Your task to perform on an android device: turn on priority inbox in the gmail app Image 0: 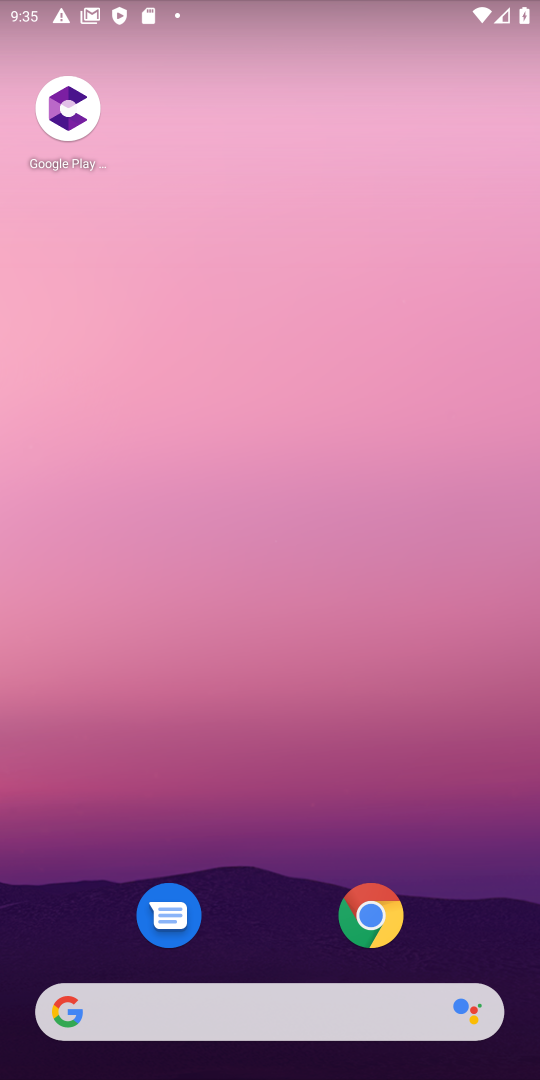
Step 0: press home button
Your task to perform on an android device: turn on priority inbox in the gmail app Image 1: 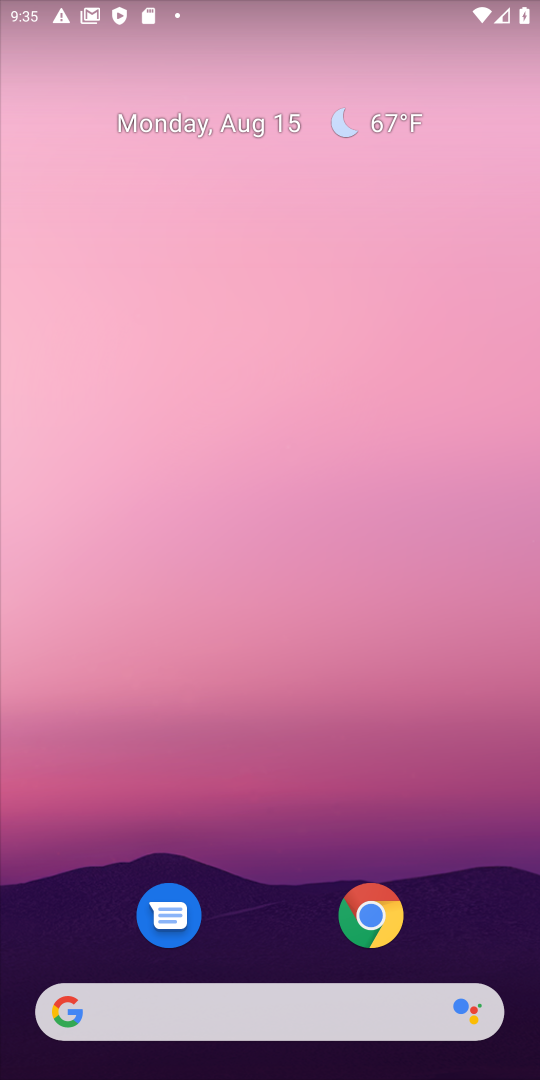
Step 1: drag from (281, 925) to (256, 228)
Your task to perform on an android device: turn on priority inbox in the gmail app Image 2: 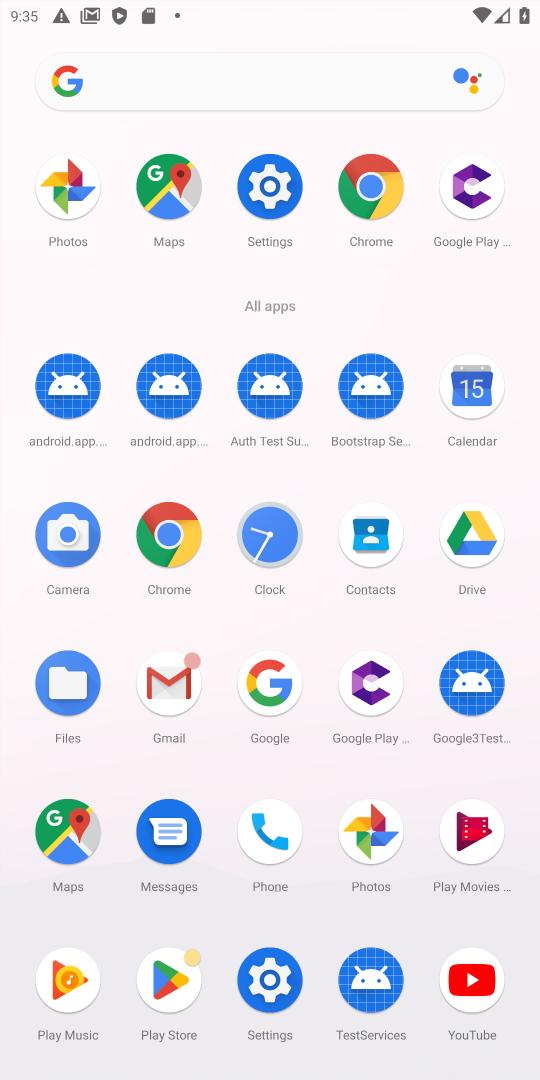
Step 2: click (167, 673)
Your task to perform on an android device: turn on priority inbox in the gmail app Image 3: 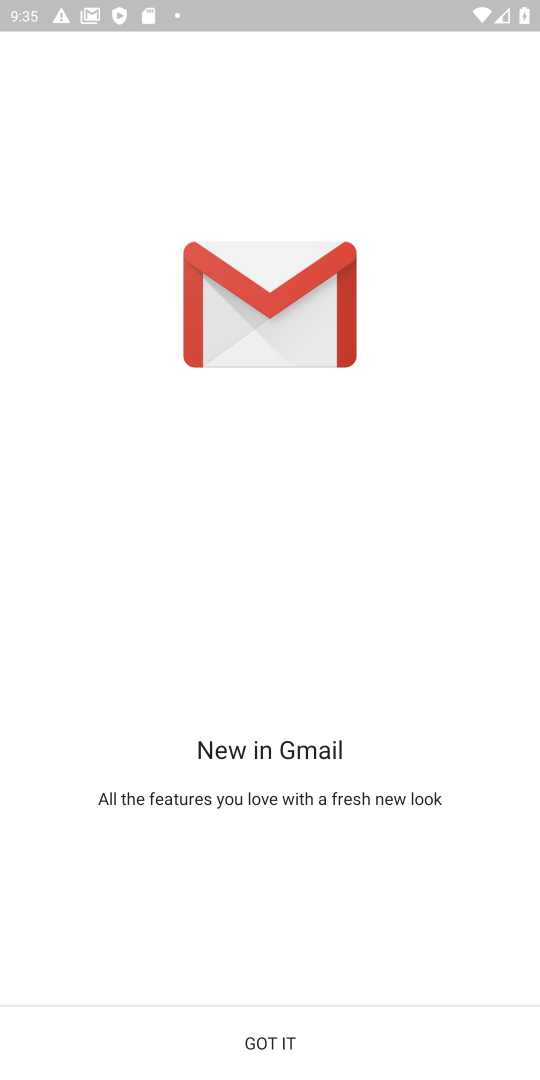
Step 3: click (264, 1035)
Your task to perform on an android device: turn on priority inbox in the gmail app Image 4: 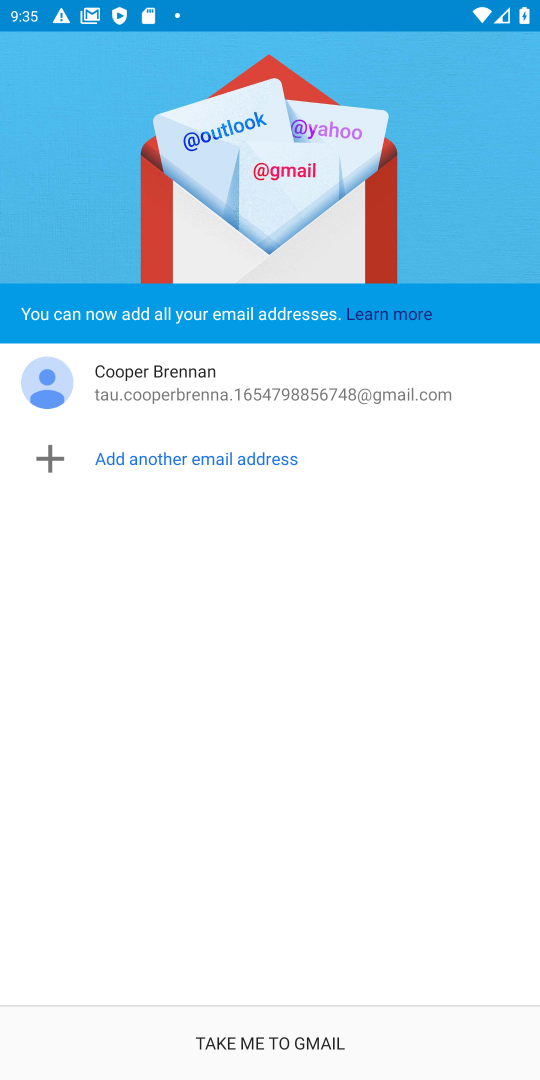
Step 4: click (264, 1035)
Your task to perform on an android device: turn on priority inbox in the gmail app Image 5: 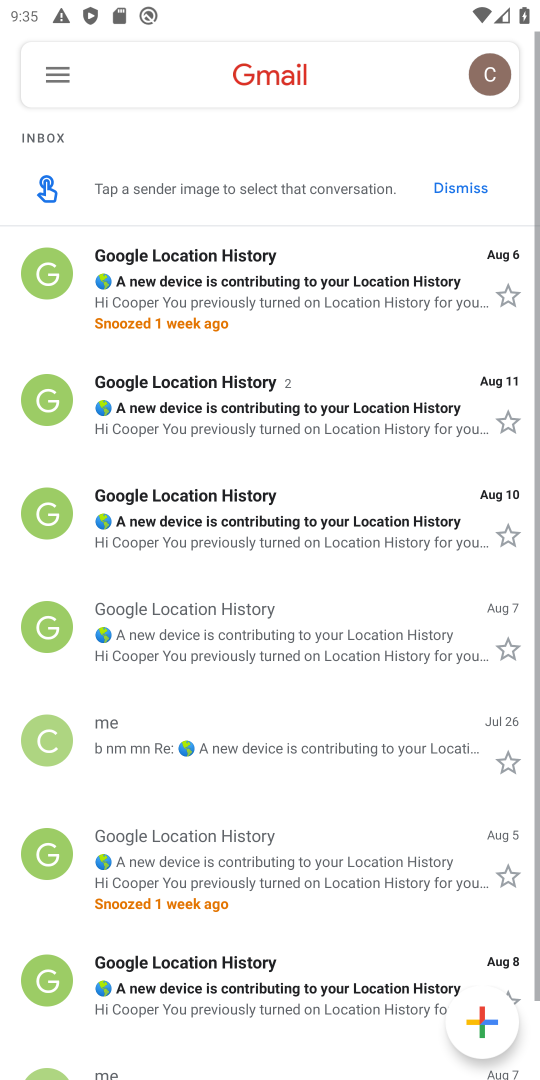
Step 5: click (487, 74)
Your task to perform on an android device: turn on priority inbox in the gmail app Image 6: 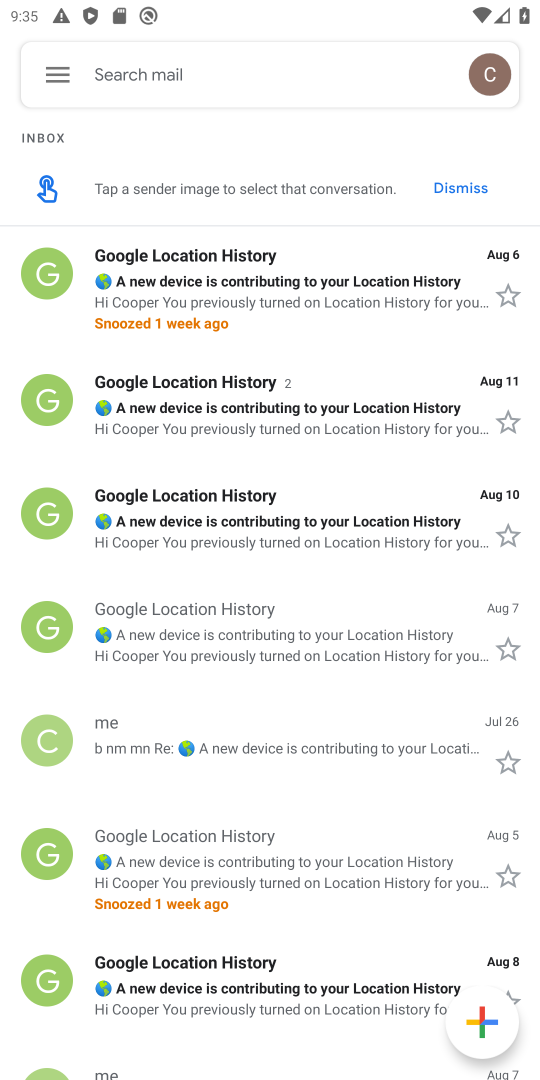
Step 6: click (492, 78)
Your task to perform on an android device: turn on priority inbox in the gmail app Image 7: 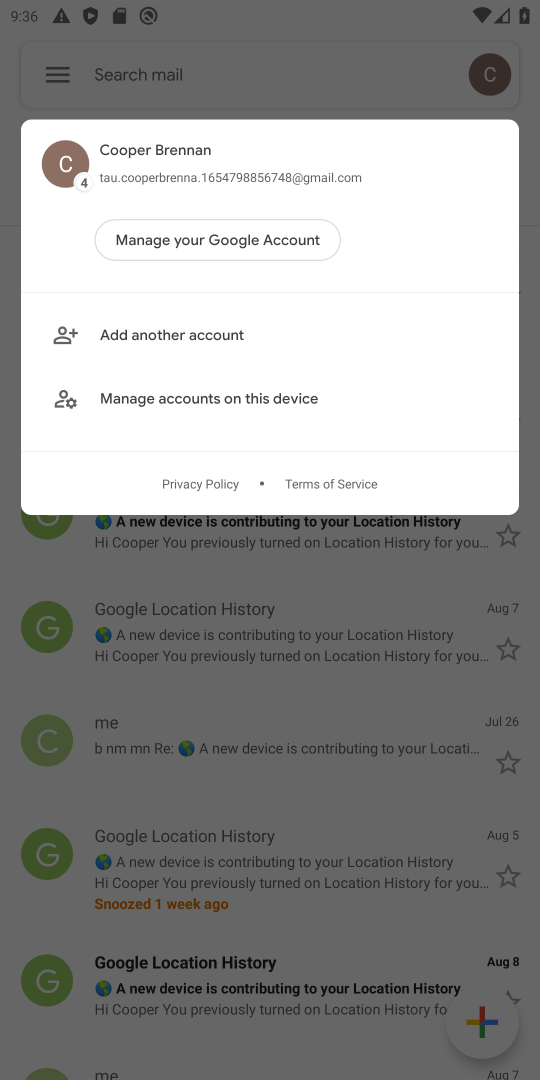
Step 7: click (55, 79)
Your task to perform on an android device: turn on priority inbox in the gmail app Image 8: 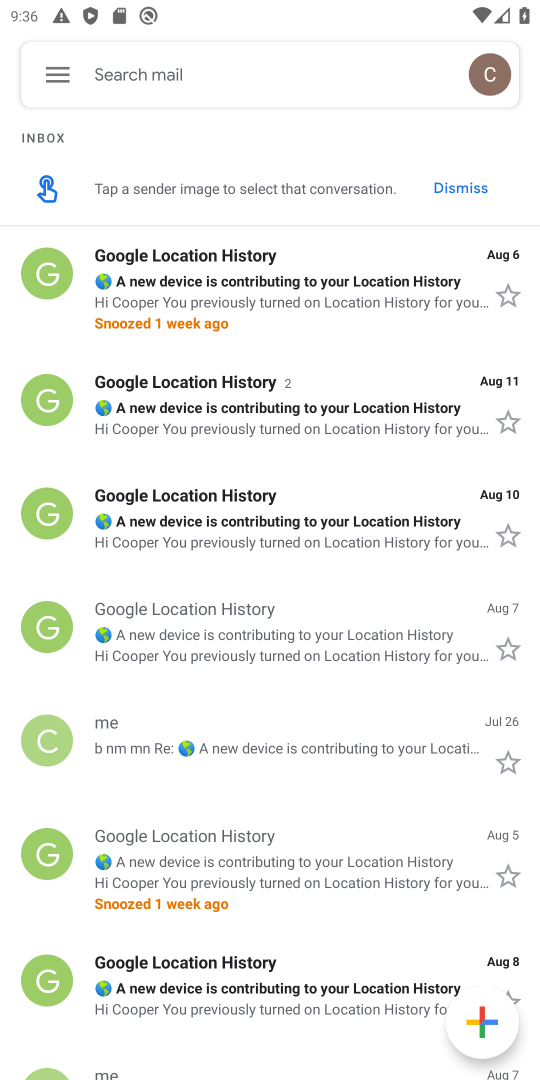
Step 8: click (59, 77)
Your task to perform on an android device: turn on priority inbox in the gmail app Image 9: 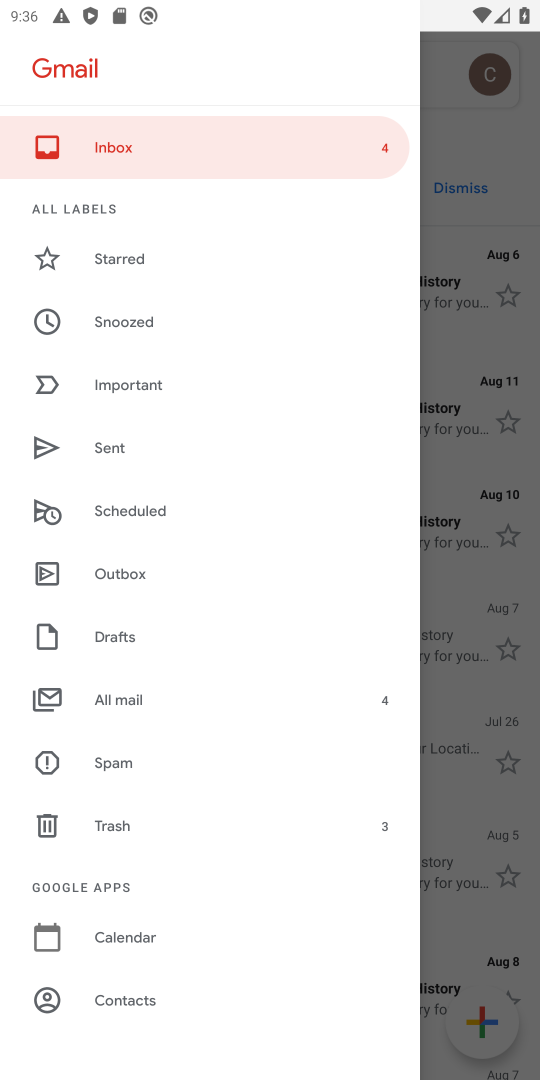
Step 9: drag from (207, 881) to (213, 298)
Your task to perform on an android device: turn on priority inbox in the gmail app Image 10: 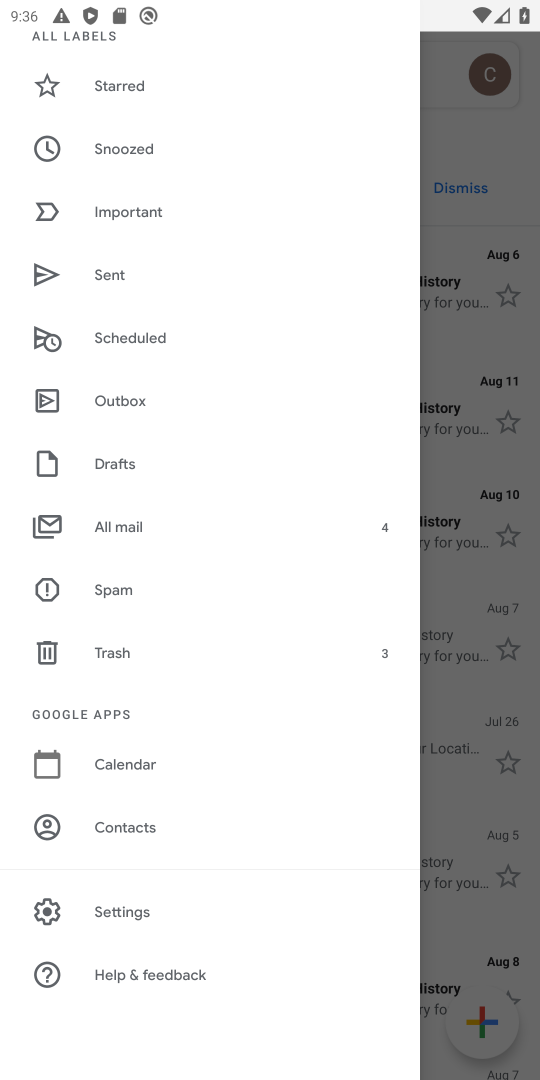
Step 10: click (117, 903)
Your task to perform on an android device: turn on priority inbox in the gmail app Image 11: 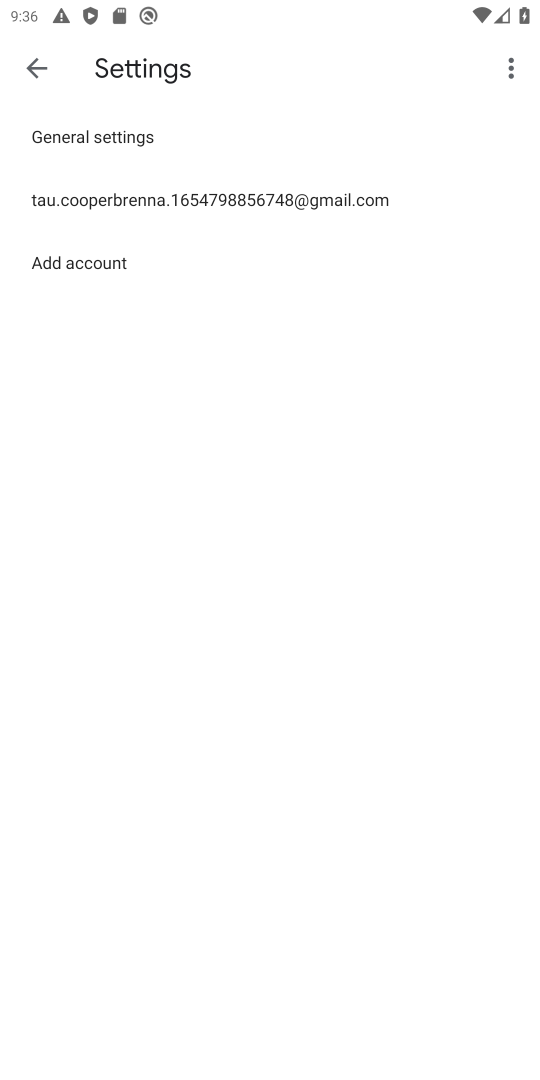
Step 11: click (132, 200)
Your task to perform on an android device: turn on priority inbox in the gmail app Image 12: 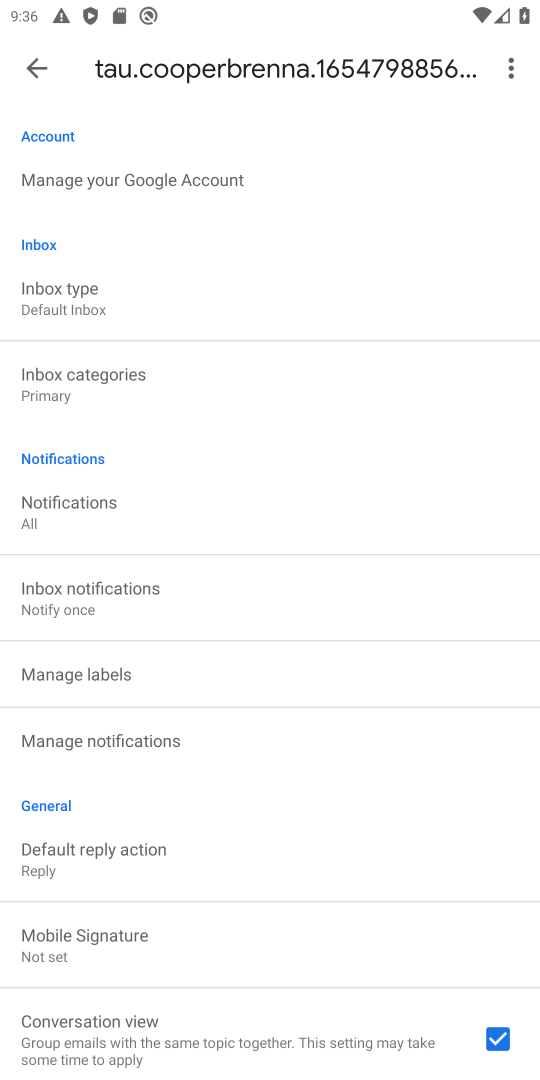
Step 12: click (84, 295)
Your task to perform on an android device: turn on priority inbox in the gmail app Image 13: 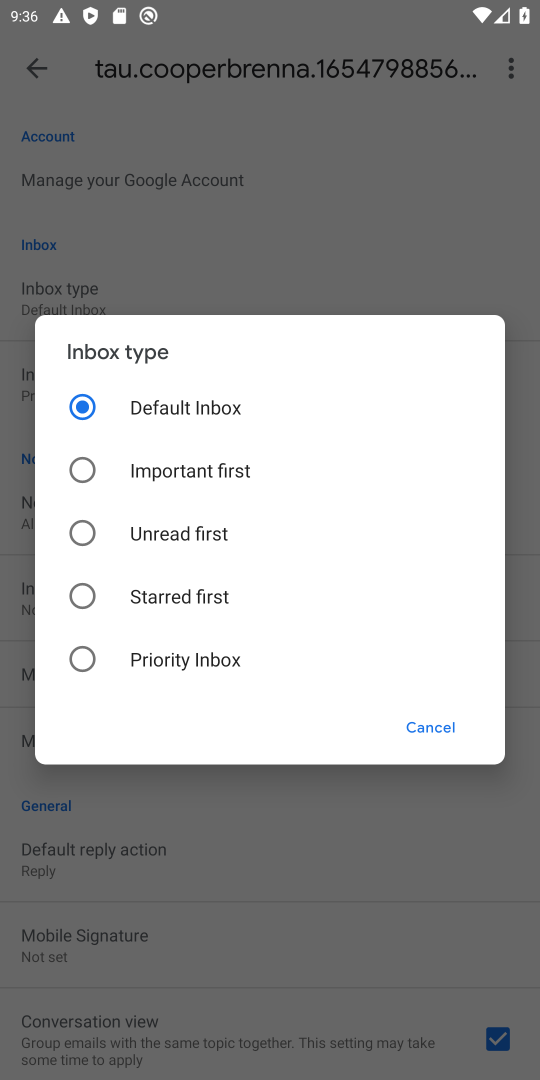
Step 13: click (82, 665)
Your task to perform on an android device: turn on priority inbox in the gmail app Image 14: 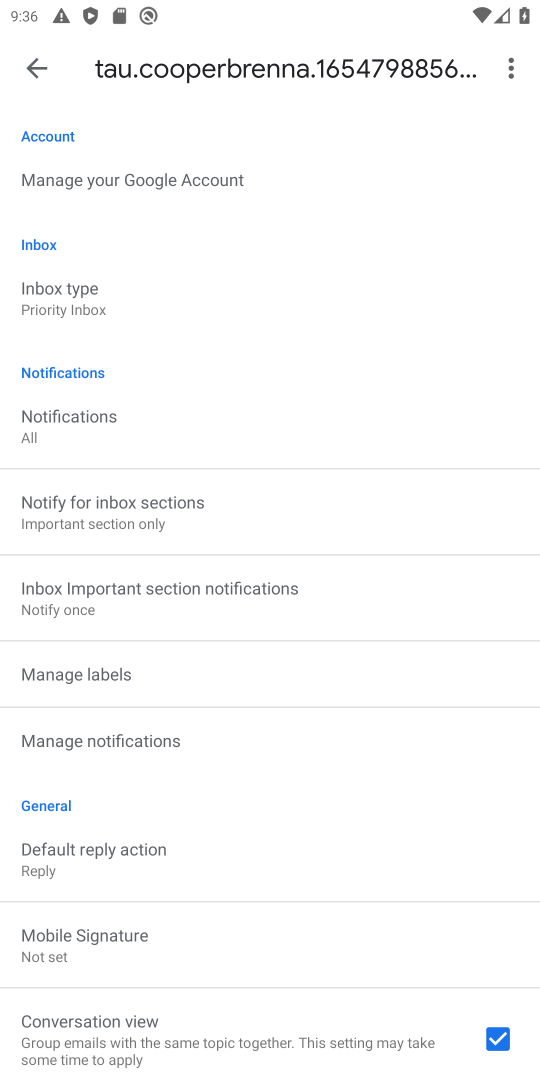
Step 14: task complete